Your task to perform on an android device: open a bookmark in the chrome app Image 0: 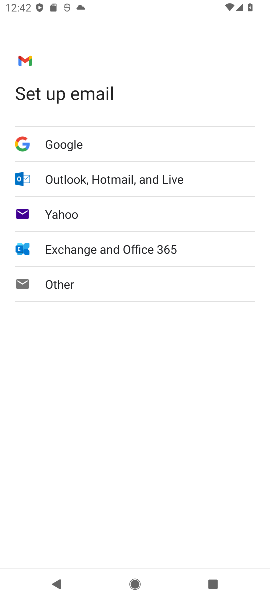
Step 0: press home button
Your task to perform on an android device: open a bookmark in the chrome app Image 1: 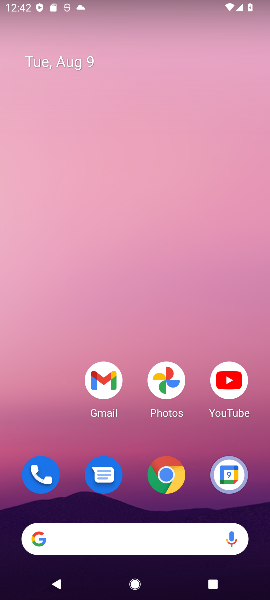
Step 1: click (166, 475)
Your task to perform on an android device: open a bookmark in the chrome app Image 2: 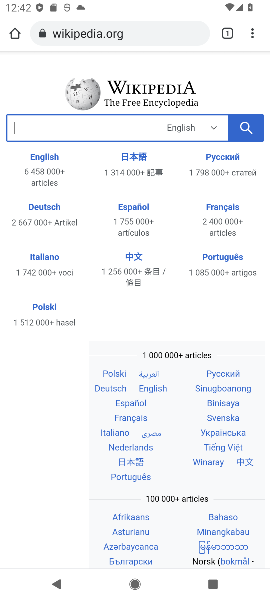
Step 2: click (250, 37)
Your task to perform on an android device: open a bookmark in the chrome app Image 3: 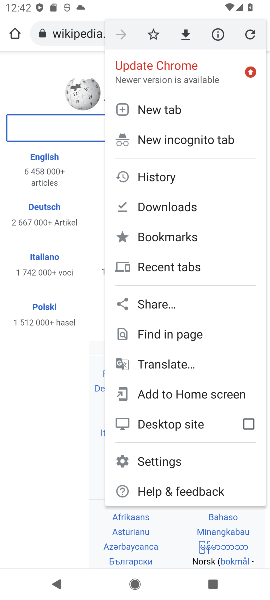
Step 3: click (158, 232)
Your task to perform on an android device: open a bookmark in the chrome app Image 4: 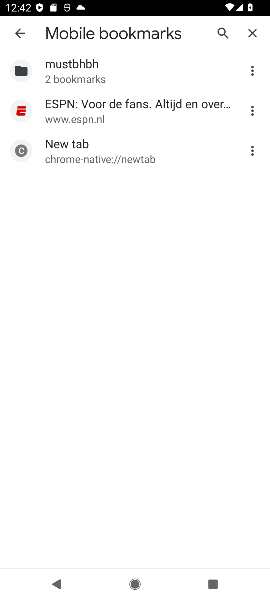
Step 4: click (118, 111)
Your task to perform on an android device: open a bookmark in the chrome app Image 5: 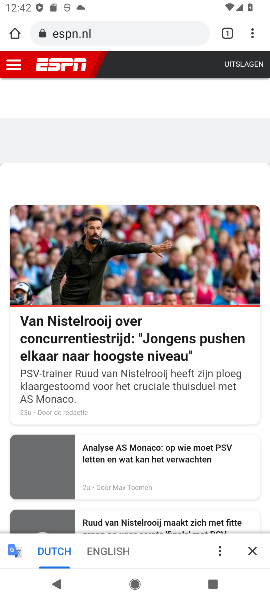
Step 5: task complete